Your task to perform on an android device: What's the weather going to be tomorrow? Image 0: 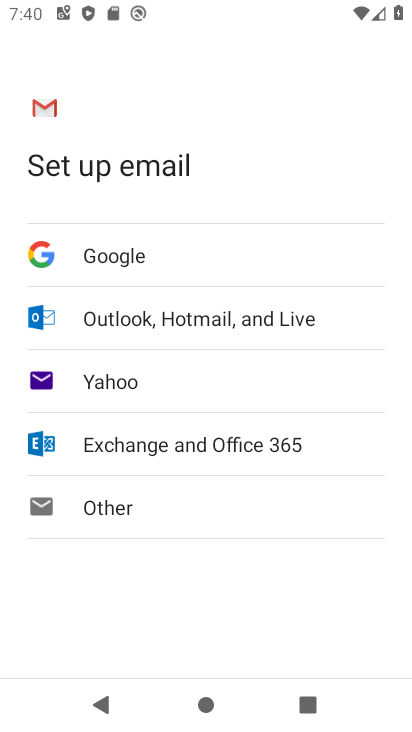
Step 0: drag from (165, 581) to (165, 283)
Your task to perform on an android device: What's the weather going to be tomorrow? Image 1: 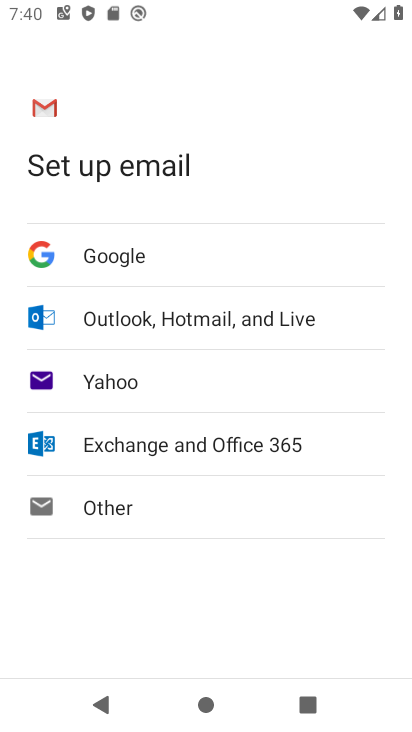
Step 1: press home button
Your task to perform on an android device: What's the weather going to be tomorrow? Image 2: 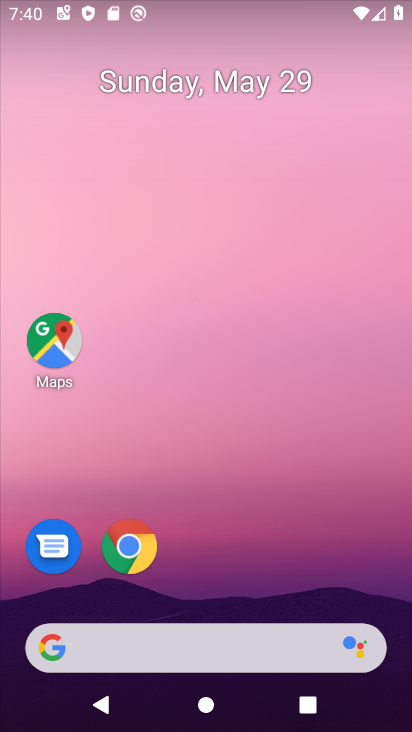
Step 2: drag from (167, 603) to (220, 206)
Your task to perform on an android device: What's the weather going to be tomorrow? Image 3: 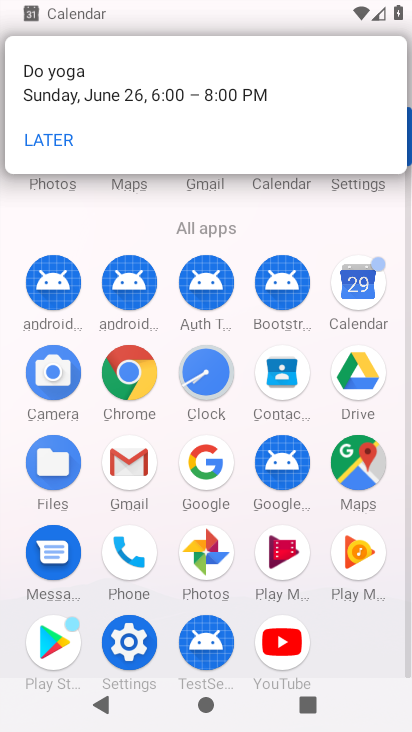
Step 3: click (211, 457)
Your task to perform on an android device: What's the weather going to be tomorrow? Image 4: 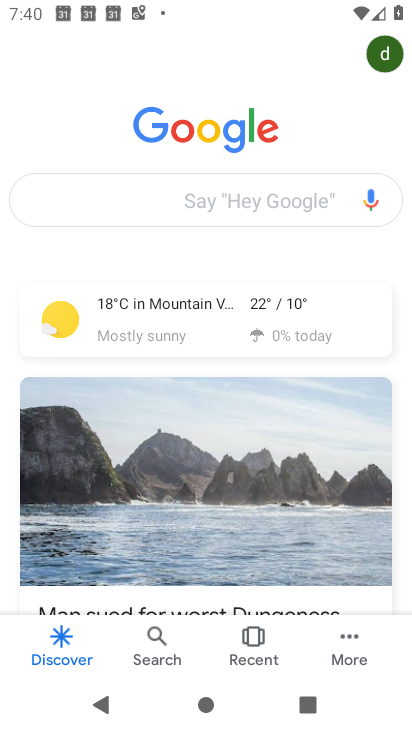
Step 4: click (161, 335)
Your task to perform on an android device: What's the weather going to be tomorrow? Image 5: 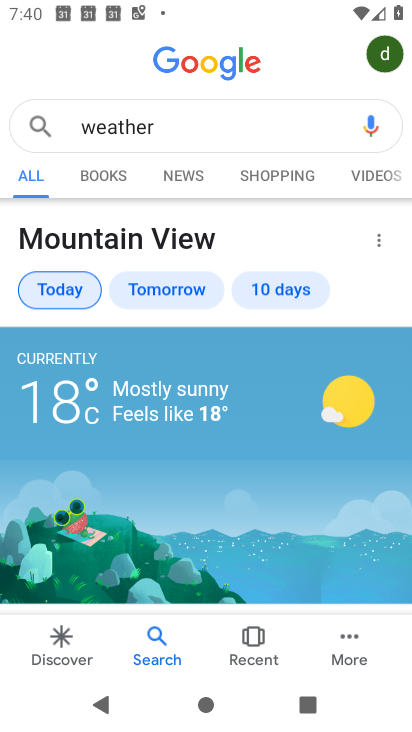
Step 5: click (165, 246)
Your task to perform on an android device: What's the weather going to be tomorrow? Image 6: 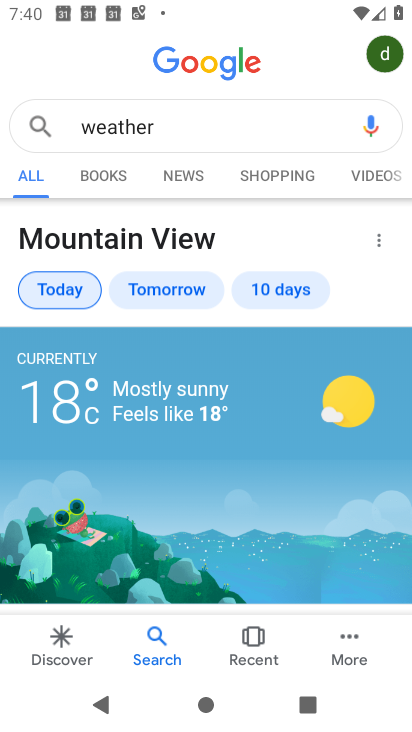
Step 6: click (171, 279)
Your task to perform on an android device: What's the weather going to be tomorrow? Image 7: 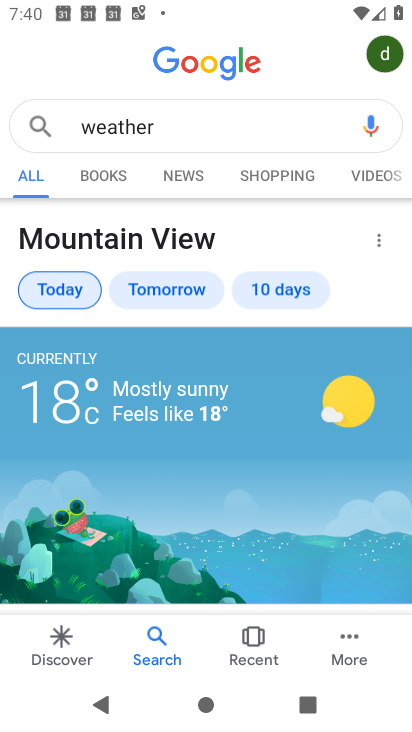
Step 7: click (169, 300)
Your task to perform on an android device: What's the weather going to be tomorrow? Image 8: 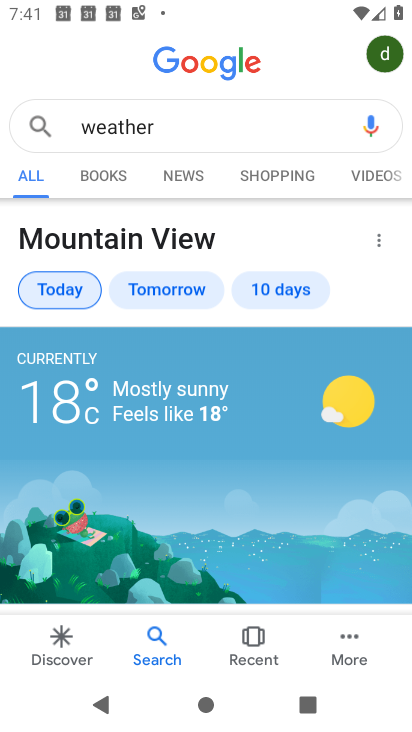
Step 8: click (165, 293)
Your task to perform on an android device: What's the weather going to be tomorrow? Image 9: 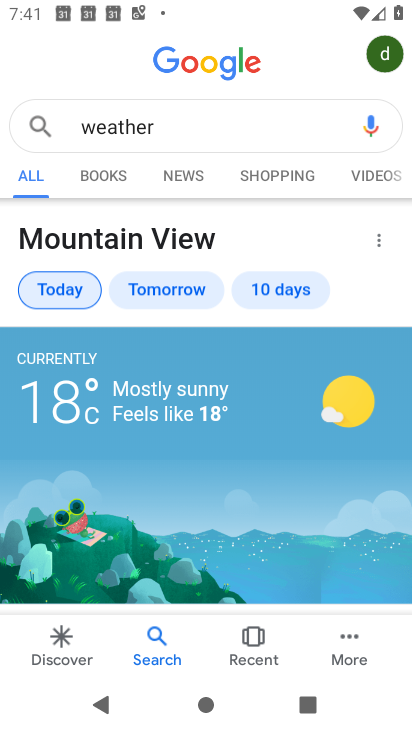
Step 9: click (197, 126)
Your task to perform on an android device: What's the weather going to be tomorrow? Image 10: 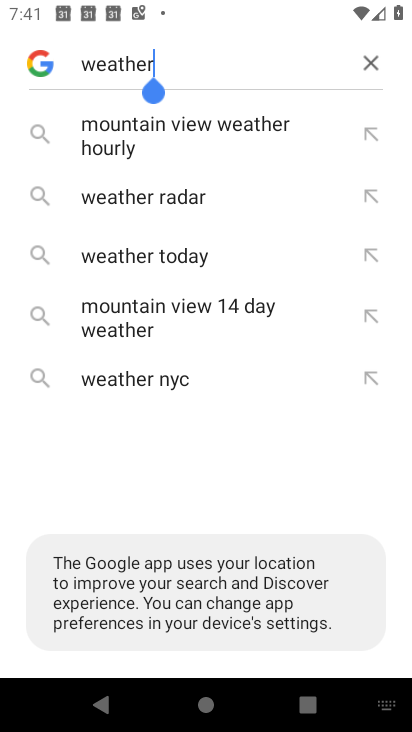
Step 10: click (374, 66)
Your task to perform on an android device: What's the weather going to be tomorrow? Image 11: 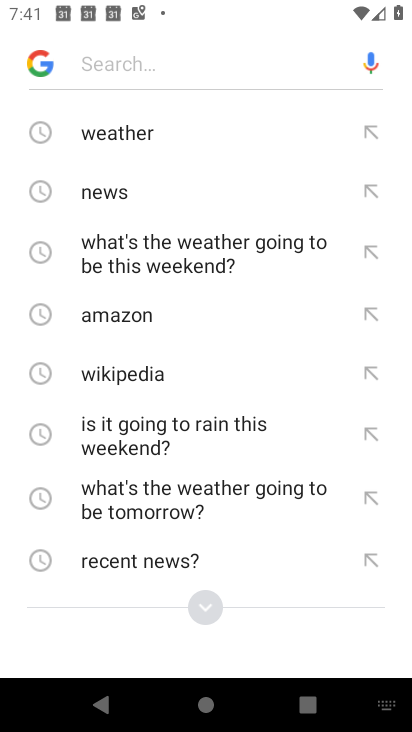
Step 11: click (137, 491)
Your task to perform on an android device: What's the weather going to be tomorrow? Image 12: 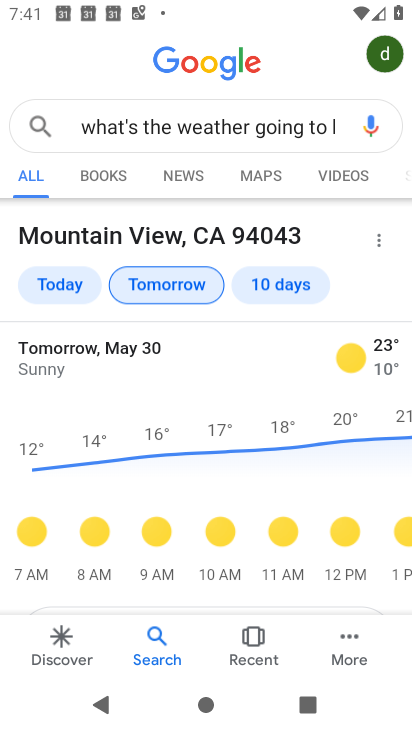
Step 12: drag from (185, 571) to (202, 223)
Your task to perform on an android device: What's the weather going to be tomorrow? Image 13: 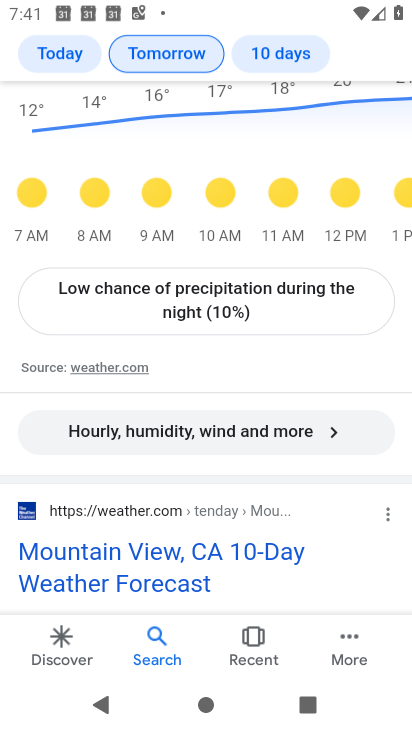
Step 13: click (202, 432)
Your task to perform on an android device: What's the weather going to be tomorrow? Image 14: 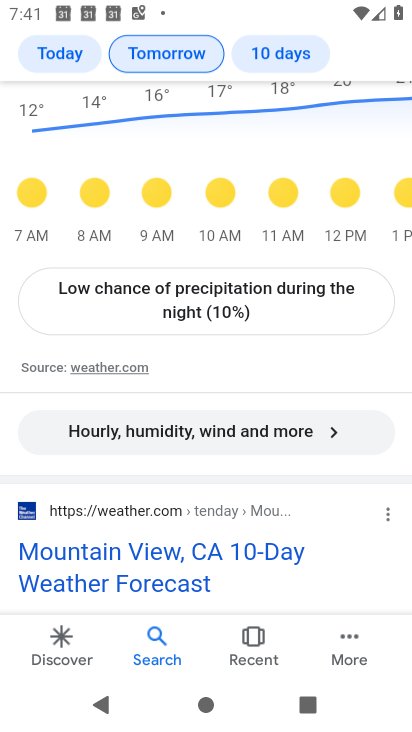
Step 14: task complete